Your task to perform on an android device: Show me popular videos on Youtube Image 0: 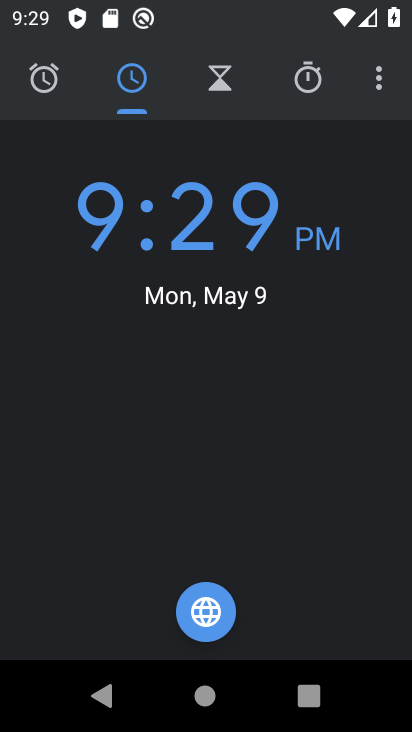
Step 0: press home button
Your task to perform on an android device: Show me popular videos on Youtube Image 1: 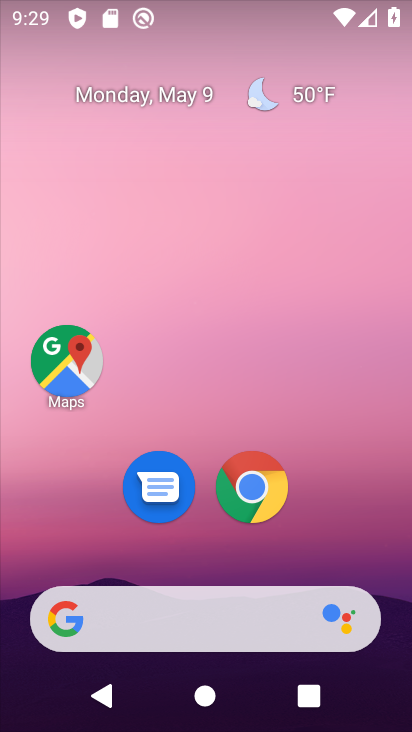
Step 1: drag from (0, 704) to (253, 161)
Your task to perform on an android device: Show me popular videos on Youtube Image 2: 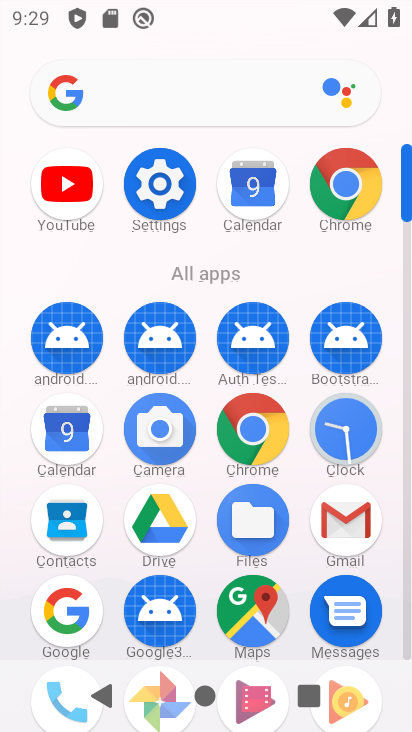
Step 2: drag from (119, 616) to (299, 166)
Your task to perform on an android device: Show me popular videos on Youtube Image 3: 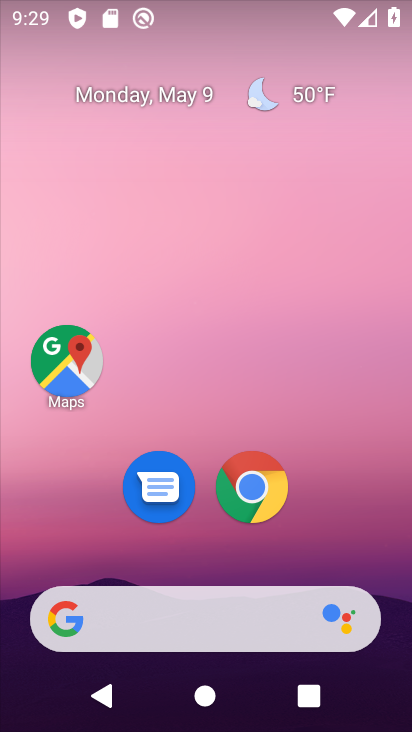
Step 3: drag from (16, 707) to (351, 128)
Your task to perform on an android device: Show me popular videos on Youtube Image 4: 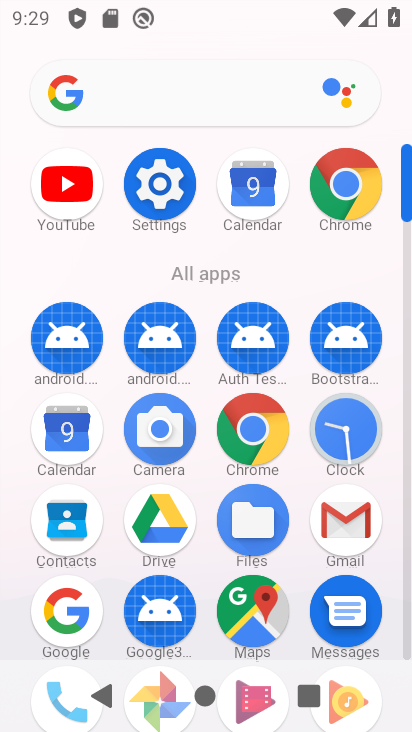
Step 4: click (57, 199)
Your task to perform on an android device: Show me popular videos on Youtube Image 5: 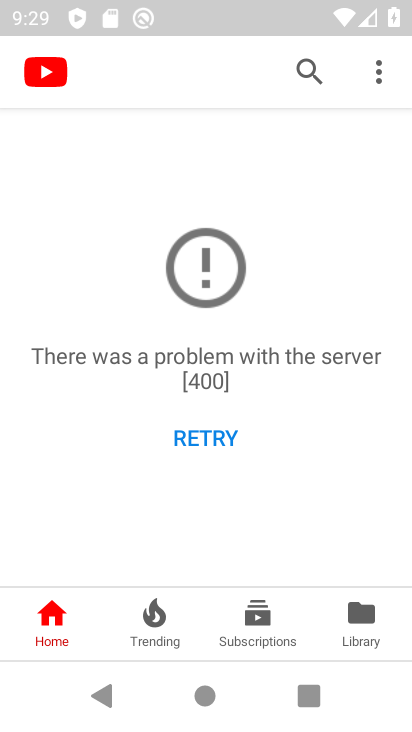
Step 5: click (154, 632)
Your task to perform on an android device: Show me popular videos on Youtube Image 6: 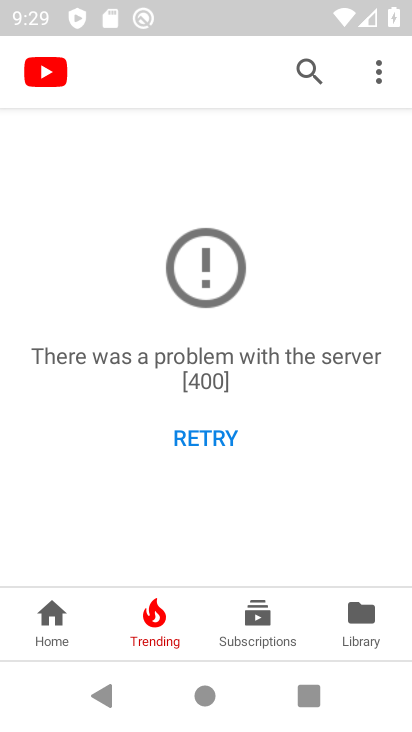
Step 6: click (153, 632)
Your task to perform on an android device: Show me popular videos on Youtube Image 7: 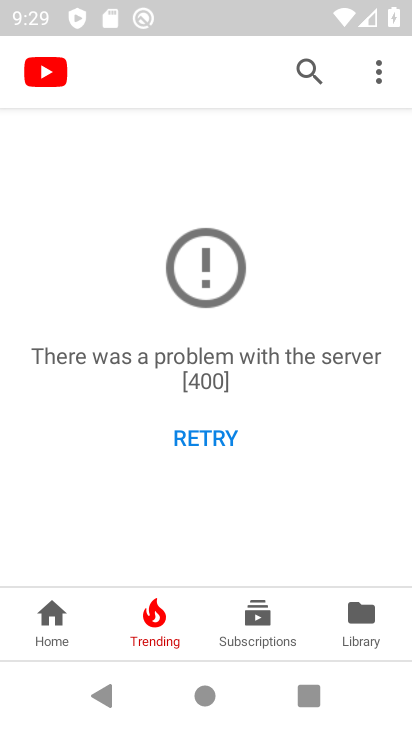
Step 7: task complete